Your task to perform on an android device: Do I have any events this weekend? Image 0: 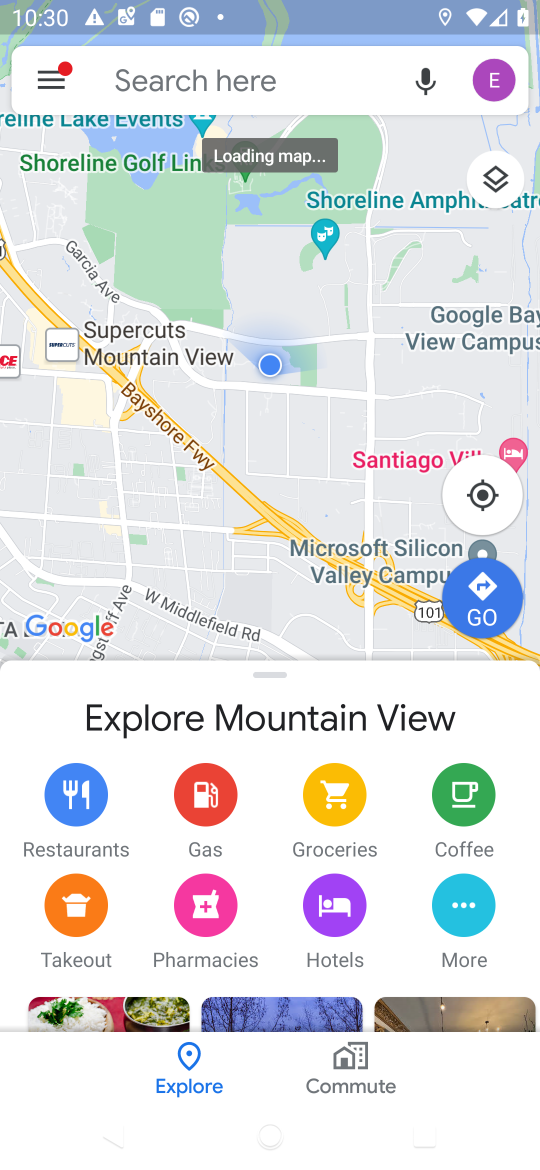
Step 0: press home button
Your task to perform on an android device: Do I have any events this weekend? Image 1: 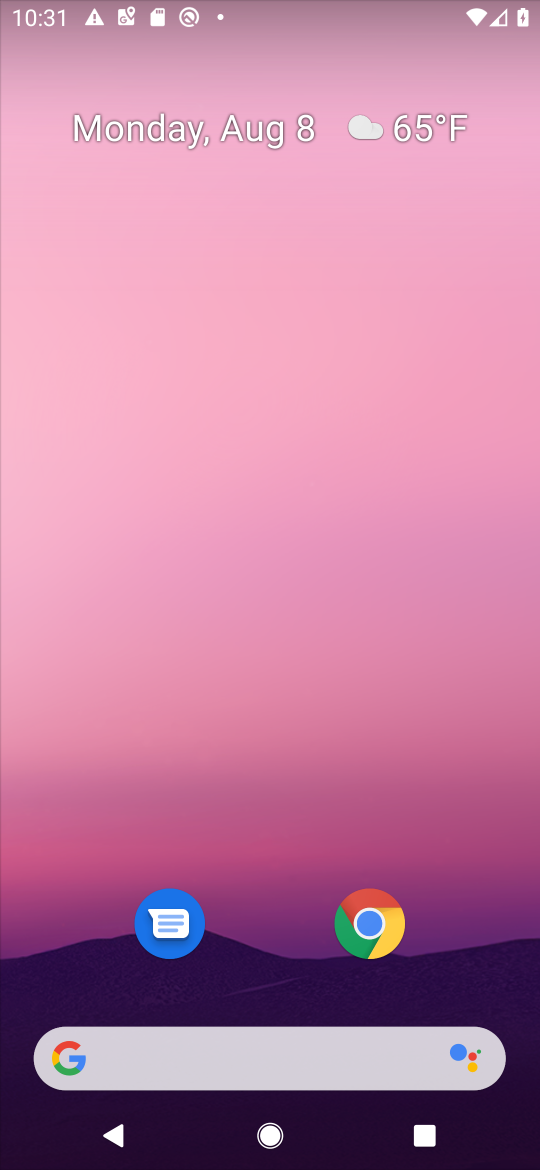
Step 1: task complete